Your task to perform on an android device: turn notification dots on Image 0: 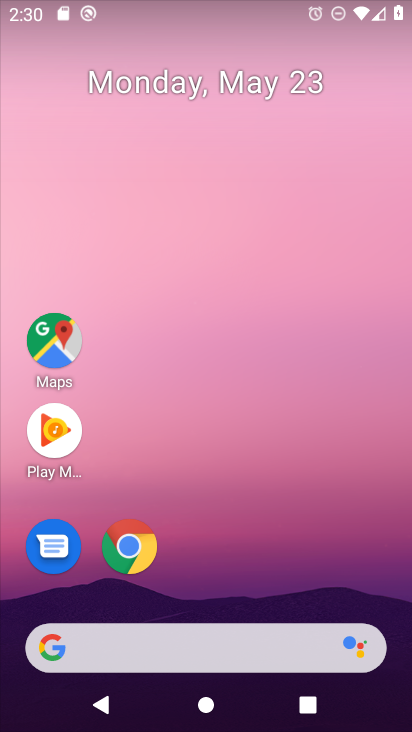
Step 0: drag from (218, 631) to (227, 154)
Your task to perform on an android device: turn notification dots on Image 1: 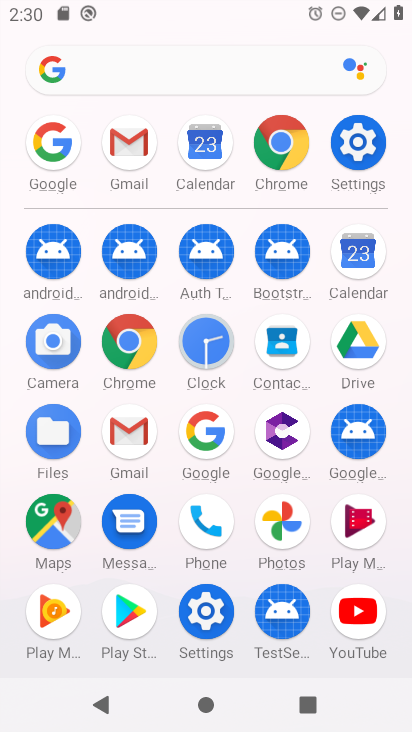
Step 1: click (367, 171)
Your task to perform on an android device: turn notification dots on Image 2: 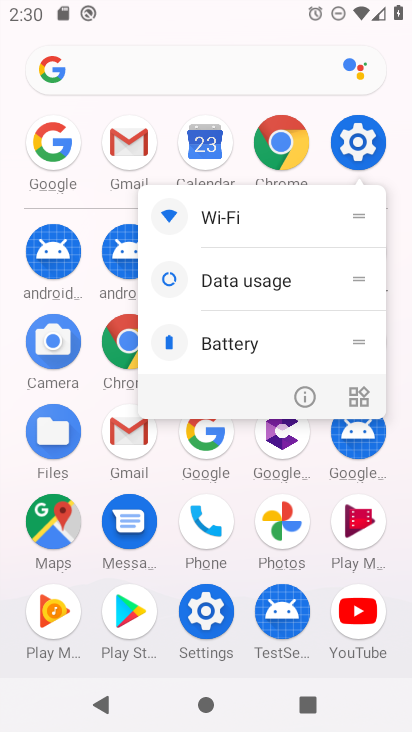
Step 2: click (355, 155)
Your task to perform on an android device: turn notification dots on Image 3: 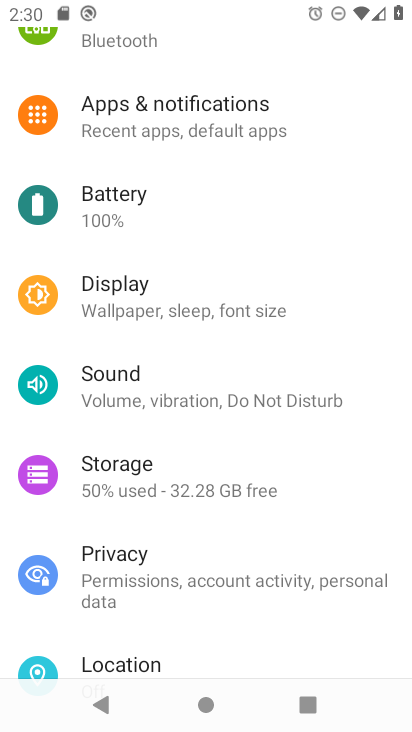
Step 3: click (235, 135)
Your task to perform on an android device: turn notification dots on Image 4: 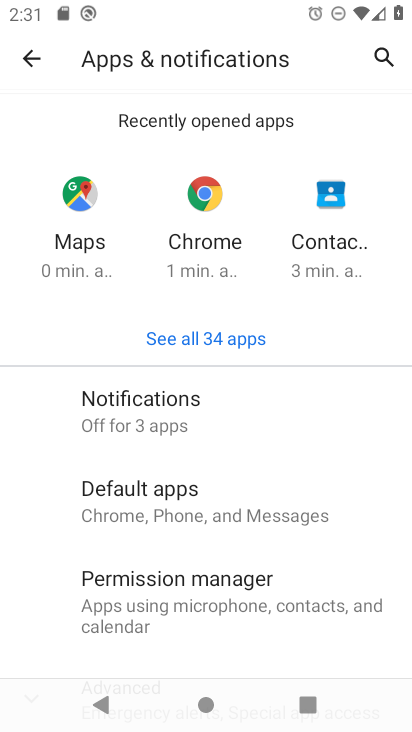
Step 4: click (233, 428)
Your task to perform on an android device: turn notification dots on Image 5: 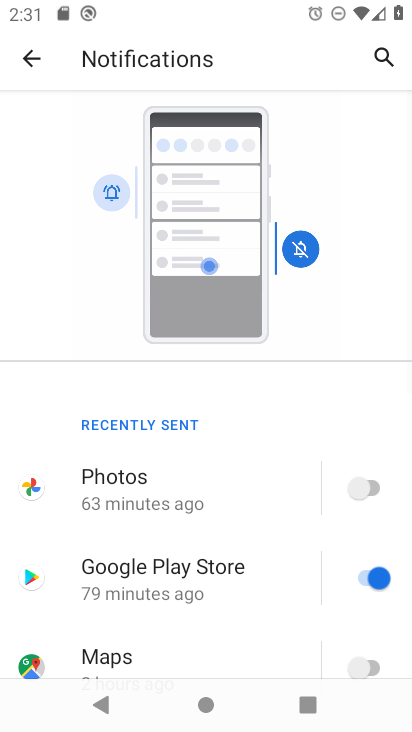
Step 5: drag from (170, 604) to (222, 107)
Your task to perform on an android device: turn notification dots on Image 6: 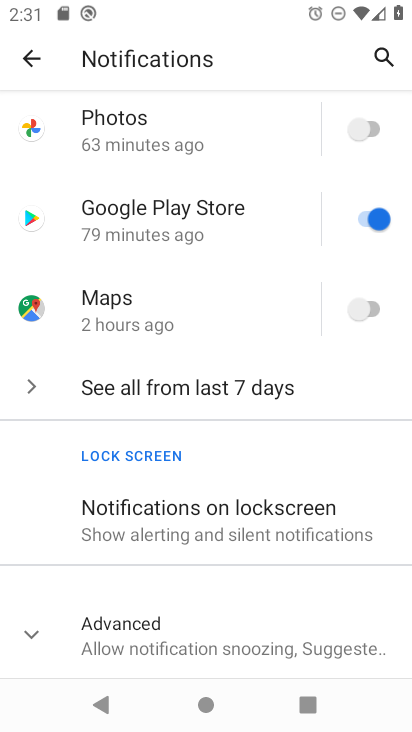
Step 6: click (178, 524)
Your task to perform on an android device: turn notification dots on Image 7: 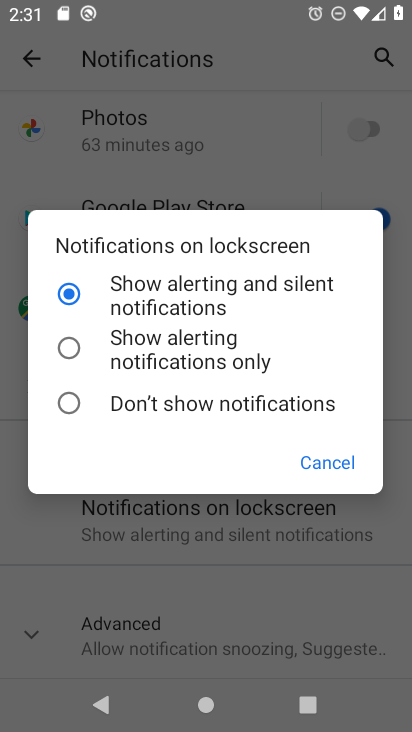
Step 7: click (138, 577)
Your task to perform on an android device: turn notification dots on Image 8: 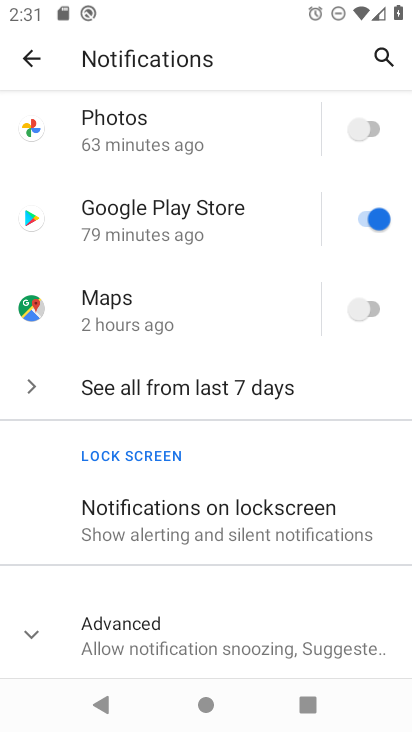
Step 8: drag from (143, 543) to (229, 13)
Your task to perform on an android device: turn notification dots on Image 9: 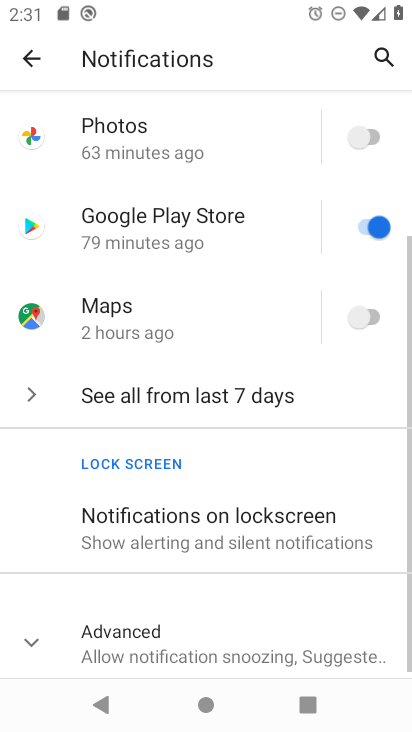
Step 9: click (254, 658)
Your task to perform on an android device: turn notification dots on Image 10: 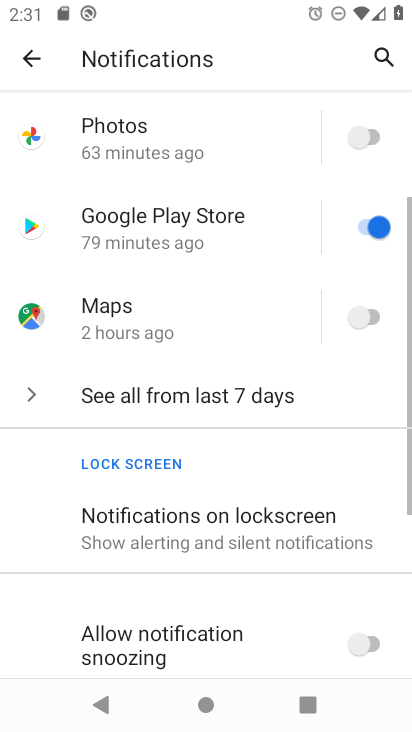
Step 10: drag from (255, 605) to (260, 119)
Your task to perform on an android device: turn notification dots on Image 11: 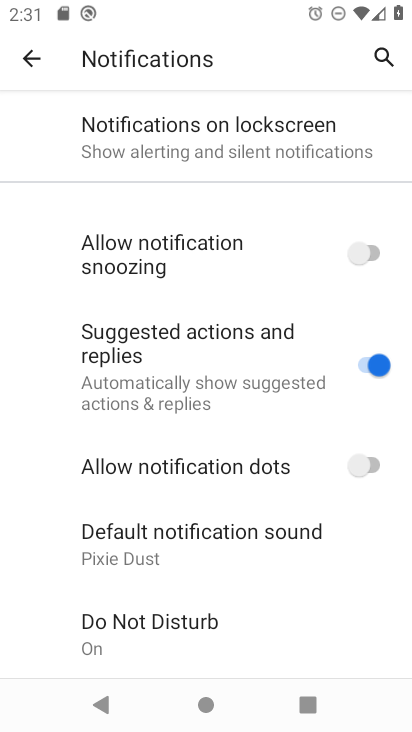
Step 11: click (256, 465)
Your task to perform on an android device: turn notification dots on Image 12: 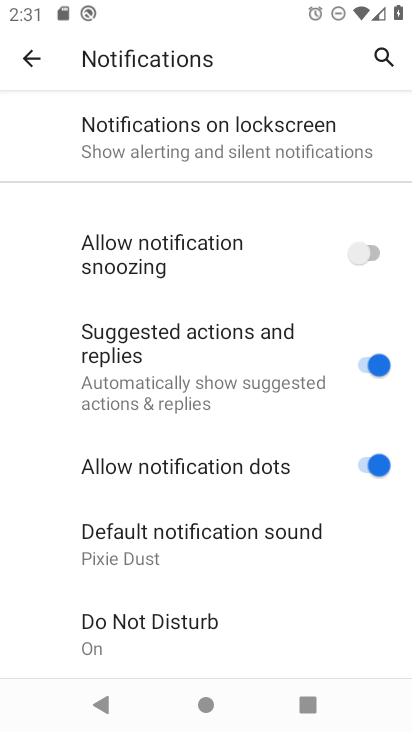
Step 12: task complete